Your task to perform on an android device: Open the map Image 0: 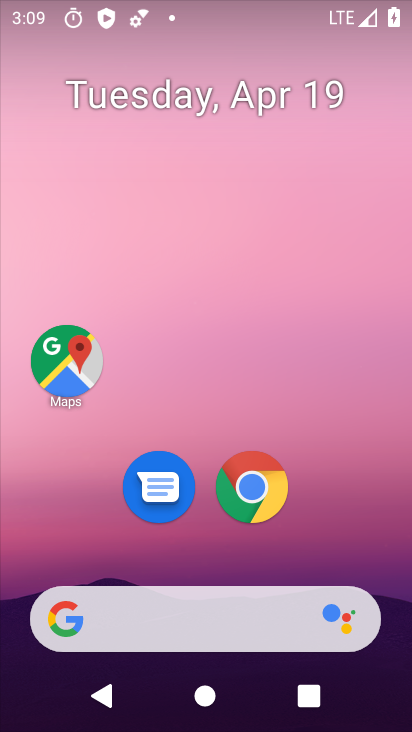
Step 0: click (65, 364)
Your task to perform on an android device: Open the map Image 1: 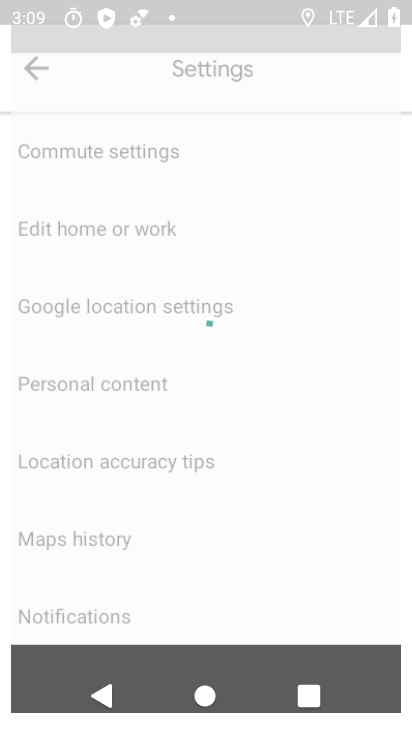
Step 1: click (43, 77)
Your task to perform on an android device: Open the map Image 2: 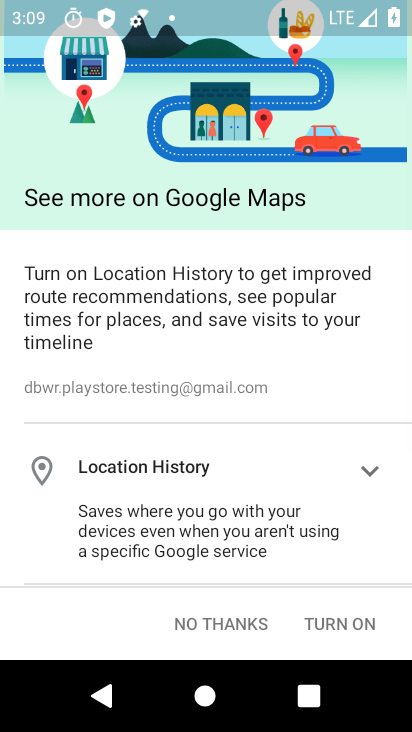
Step 2: click (239, 607)
Your task to perform on an android device: Open the map Image 3: 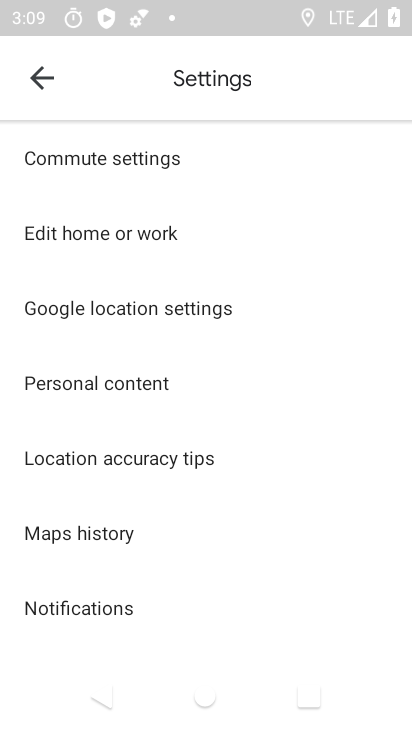
Step 3: task complete